Your task to perform on an android device: Open CNN.com Image 0: 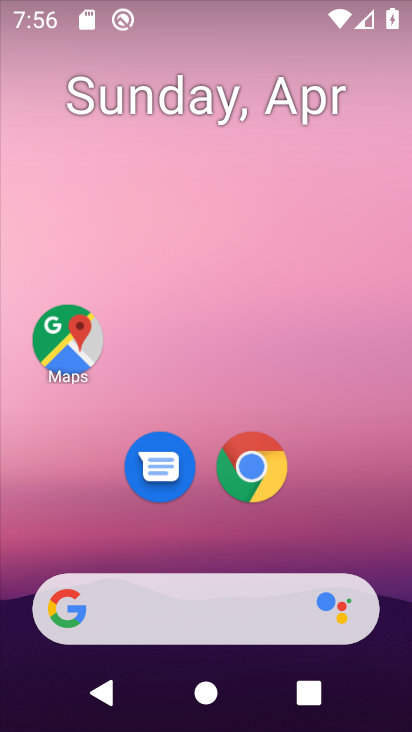
Step 0: click (273, 465)
Your task to perform on an android device: Open CNN.com Image 1: 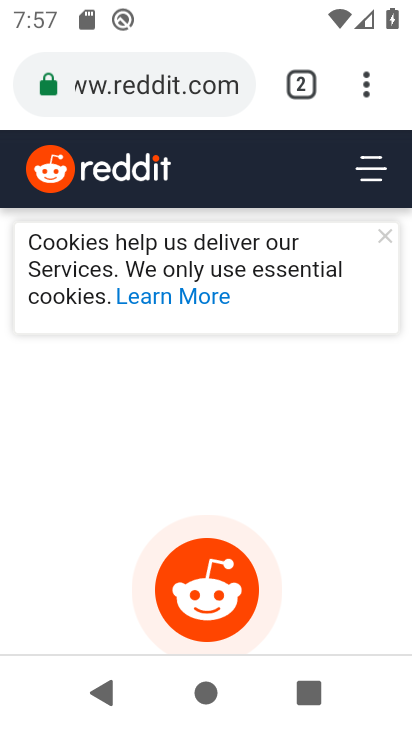
Step 1: click (148, 90)
Your task to perform on an android device: Open CNN.com Image 2: 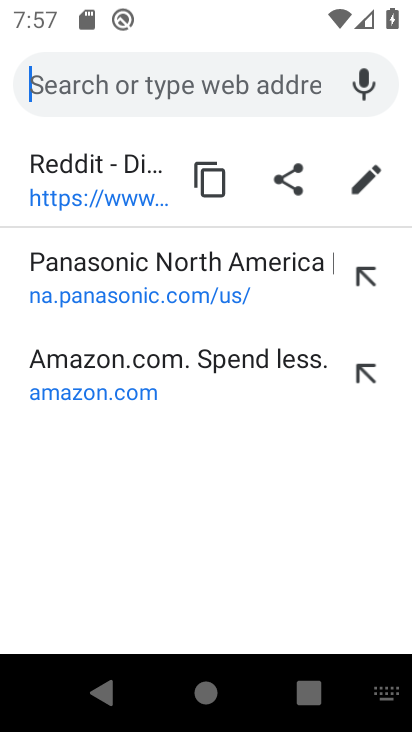
Step 2: type "CNN.com"
Your task to perform on an android device: Open CNN.com Image 3: 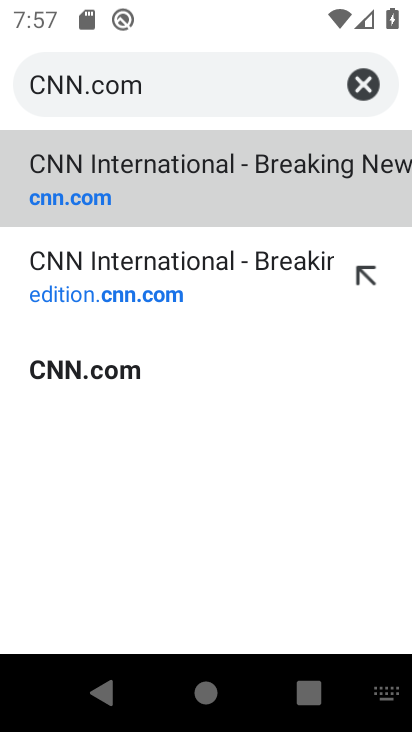
Step 3: click (120, 184)
Your task to perform on an android device: Open CNN.com Image 4: 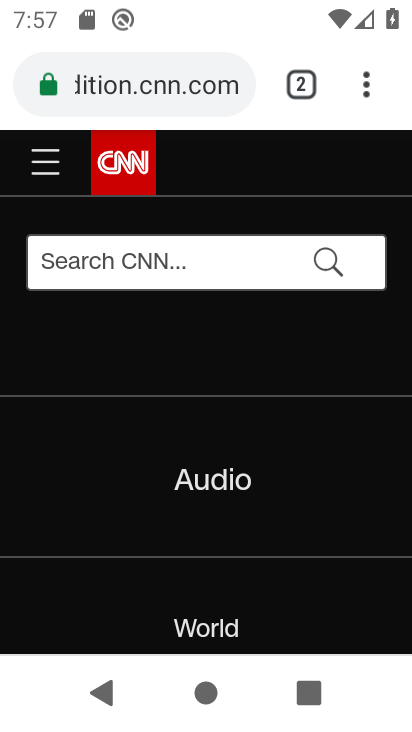
Step 4: task complete